Your task to perform on an android device: Open sound settings Image 0: 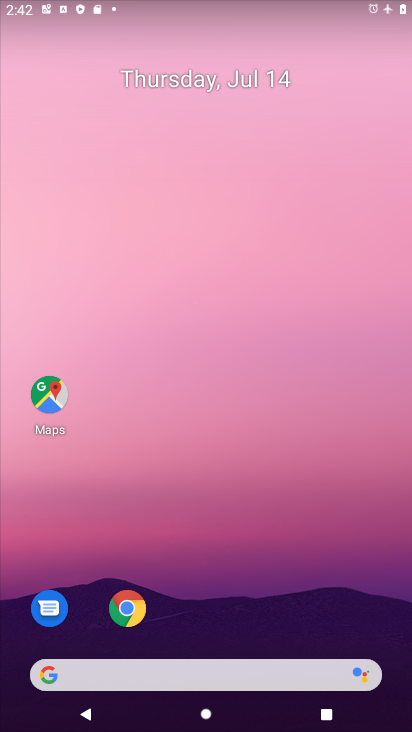
Step 0: drag from (393, 633) to (321, 42)
Your task to perform on an android device: Open sound settings Image 1: 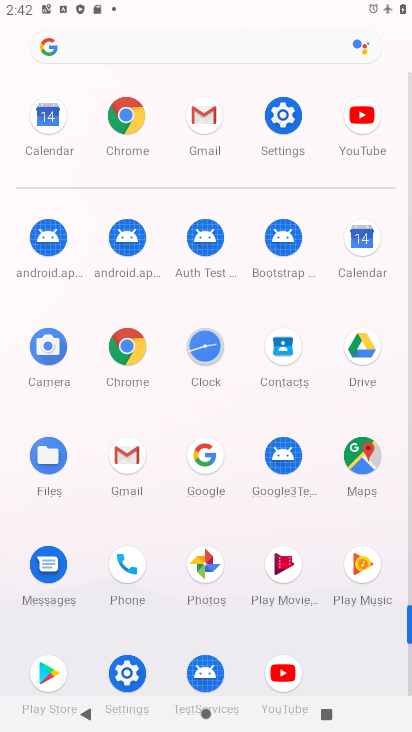
Step 1: click (126, 674)
Your task to perform on an android device: Open sound settings Image 2: 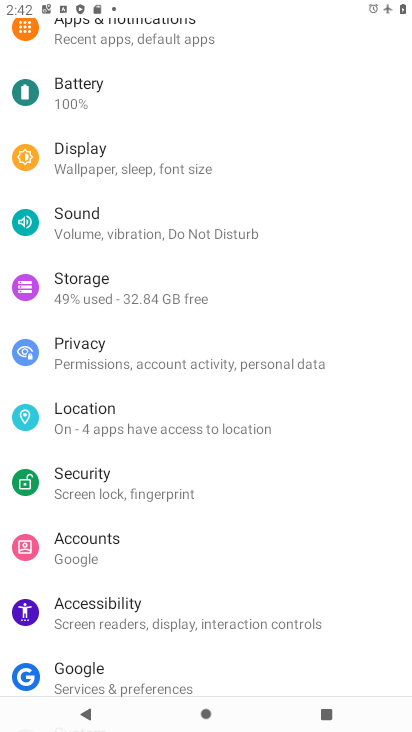
Step 2: click (100, 229)
Your task to perform on an android device: Open sound settings Image 3: 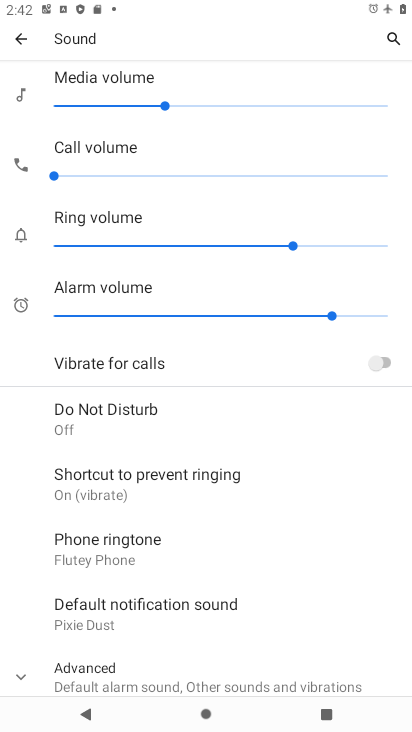
Step 3: drag from (283, 559) to (295, 220)
Your task to perform on an android device: Open sound settings Image 4: 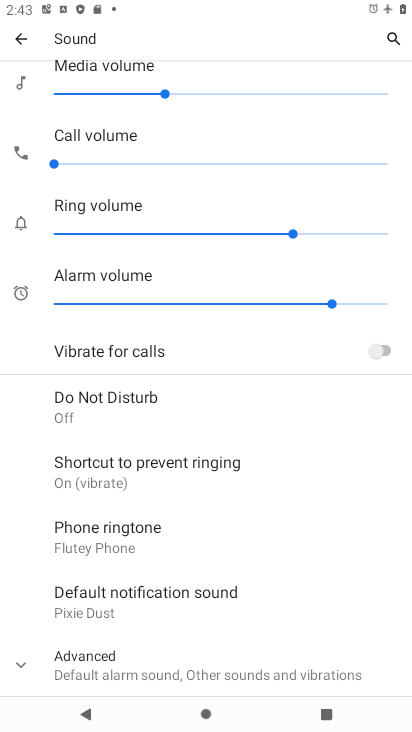
Step 4: click (20, 667)
Your task to perform on an android device: Open sound settings Image 5: 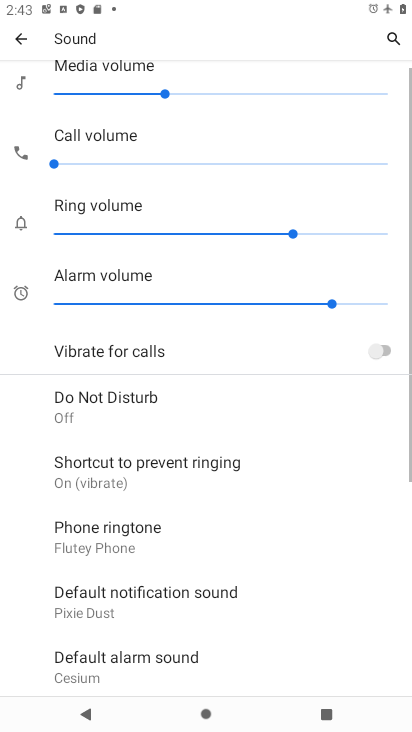
Step 5: task complete